Your task to perform on an android device: Open Amazon Image 0: 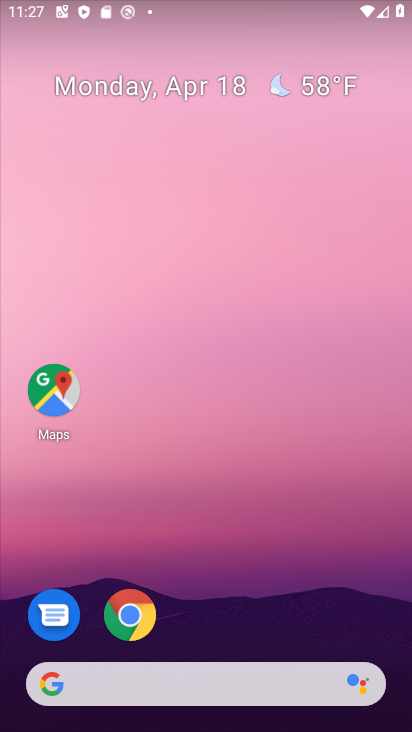
Step 0: drag from (303, 567) to (306, 179)
Your task to perform on an android device: Open Amazon Image 1: 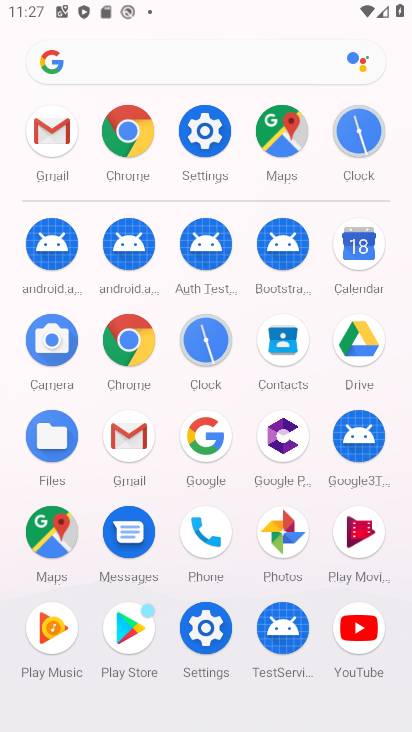
Step 1: drag from (241, 436) to (242, 252)
Your task to perform on an android device: Open Amazon Image 2: 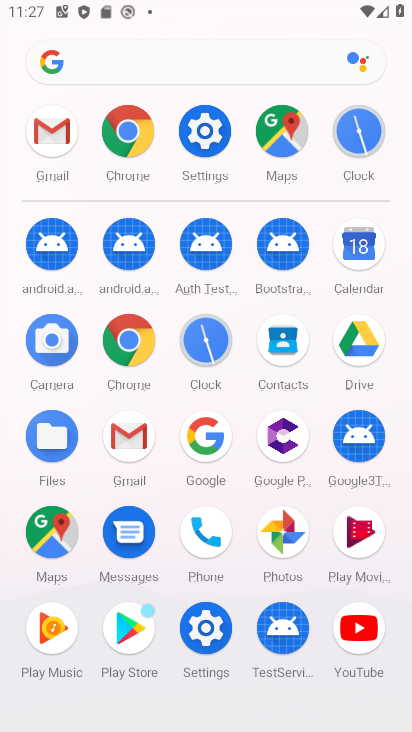
Step 2: click (137, 335)
Your task to perform on an android device: Open Amazon Image 3: 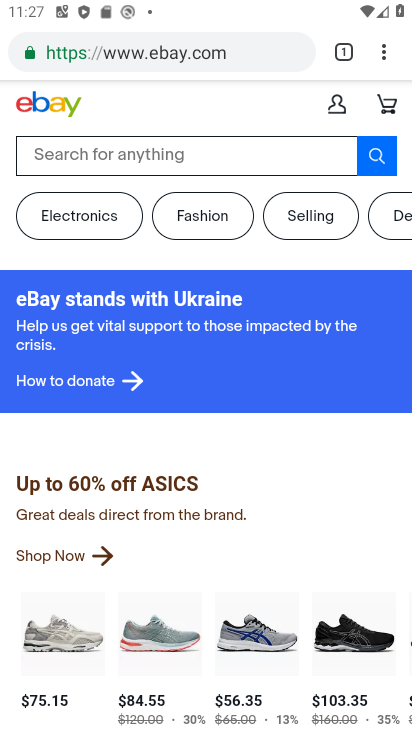
Step 3: press back button
Your task to perform on an android device: Open Amazon Image 4: 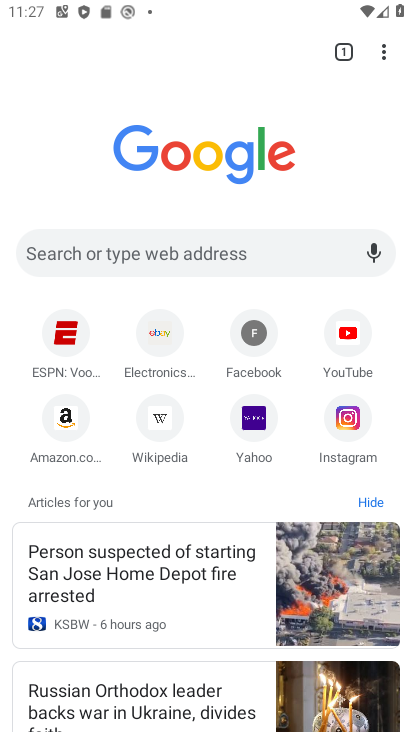
Step 4: click (75, 422)
Your task to perform on an android device: Open Amazon Image 5: 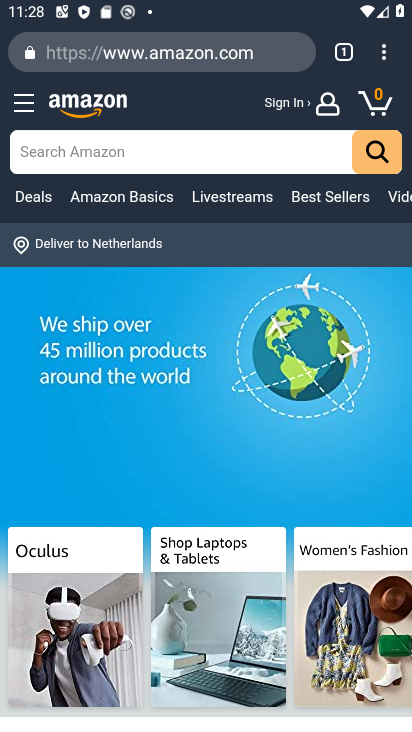
Step 5: task complete